Your task to perform on an android device: check google app version Image 0: 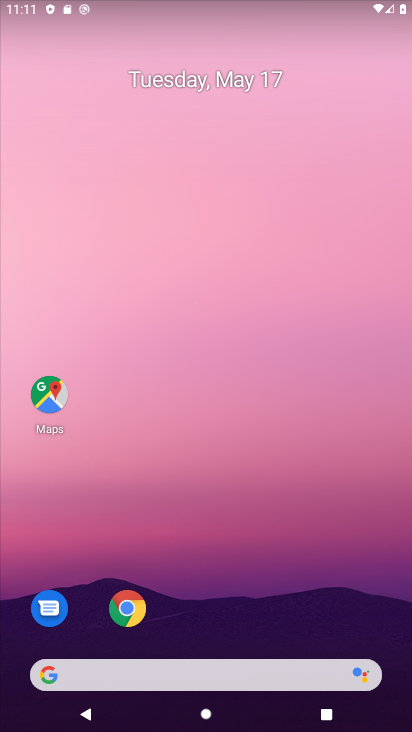
Step 0: click (170, 682)
Your task to perform on an android device: check google app version Image 1: 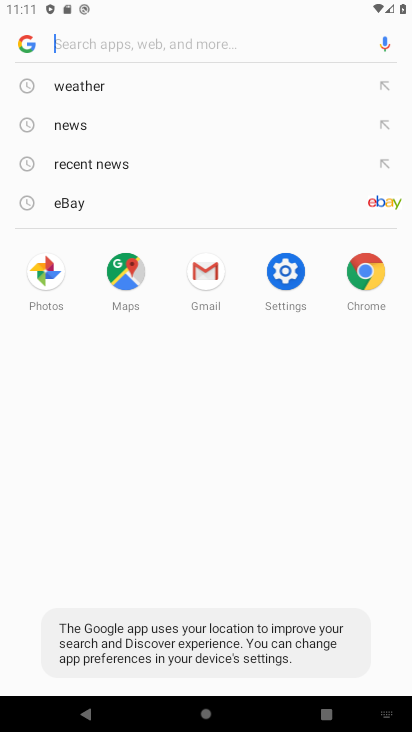
Step 1: click (27, 53)
Your task to perform on an android device: check google app version Image 2: 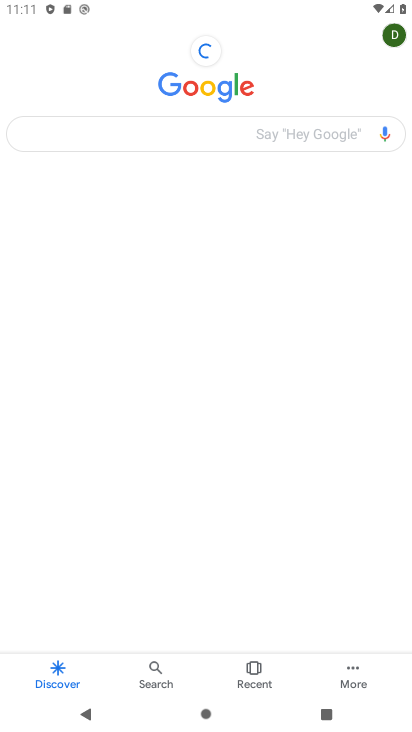
Step 2: click (360, 670)
Your task to perform on an android device: check google app version Image 3: 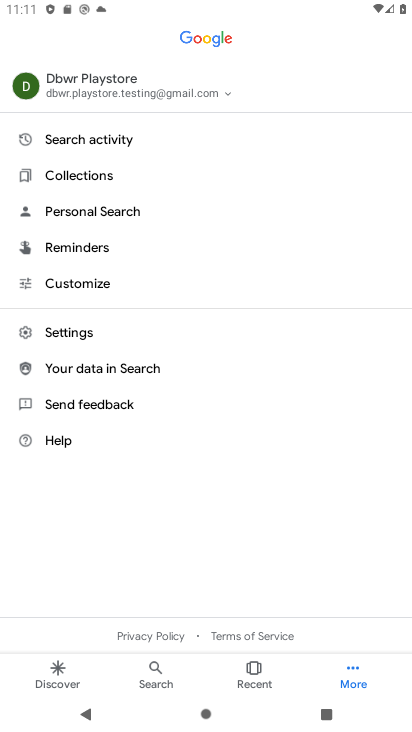
Step 3: click (85, 335)
Your task to perform on an android device: check google app version Image 4: 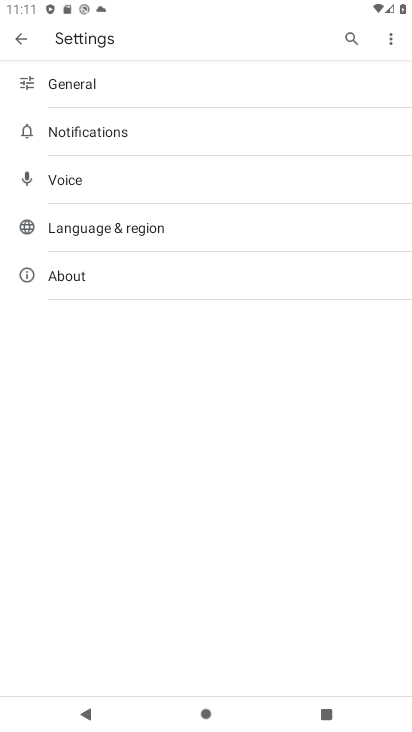
Step 4: click (71, 274)
Your task to perform on an android device: check google app version Image 5: 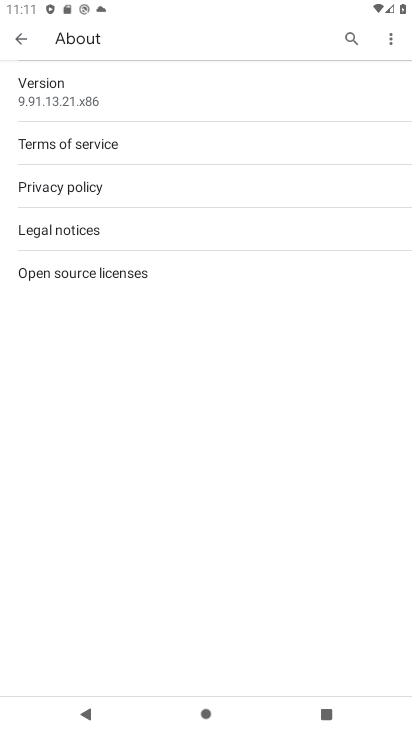
Step 5: task complete